Your task to perform on an android device: Open Google Maps and go to "Timeline" Image 0: 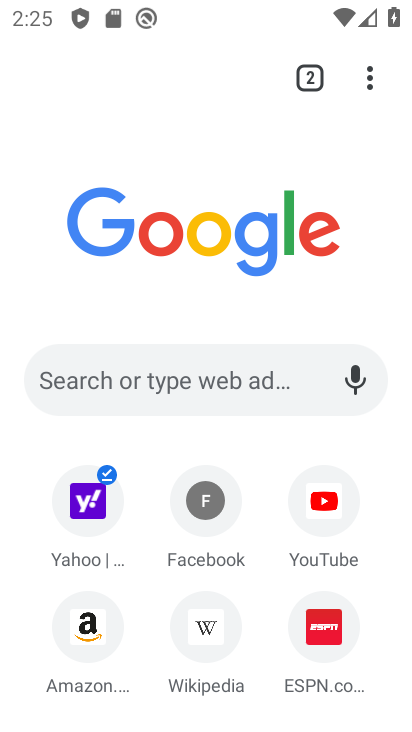
Step 0: press home button
Your task to perform on an android device: Open Google Maps and go to "Timeline" Image 1: 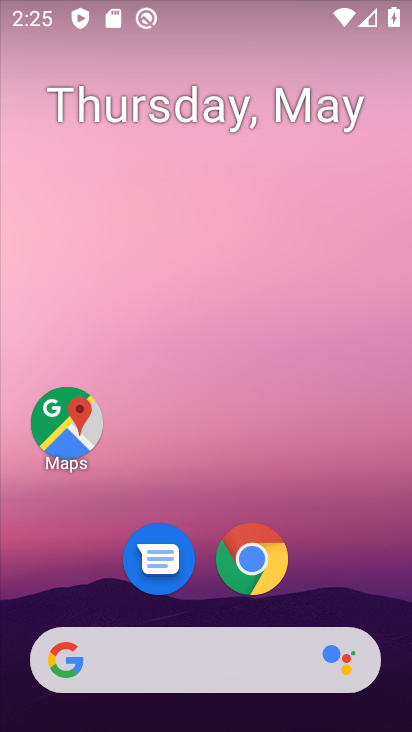
Step 1: click (74, 421)
Your task to perform on an android device: Open Google Maps and go to "Timeline" Image 2: 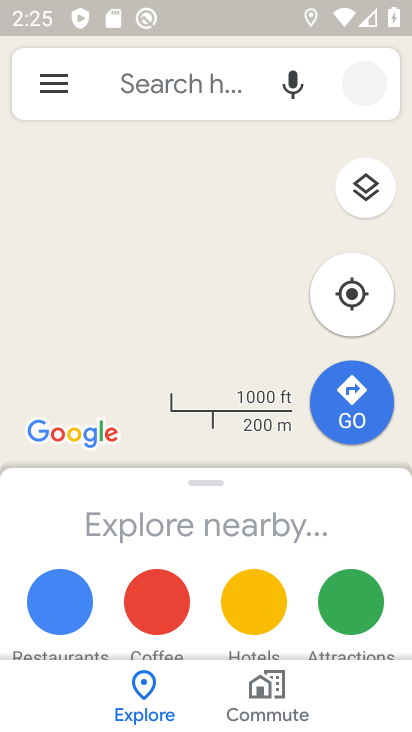
Step 2: click (50, 90)
Your task to perform on an android device: Open Google Maps and go to "Timeline" Image 3: 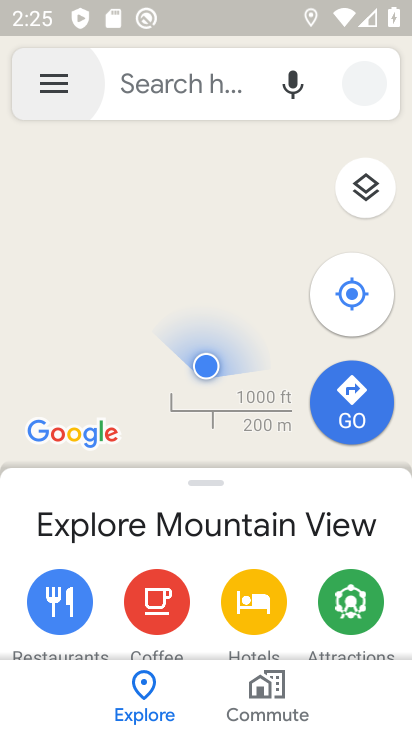
Step 3: click (50, 90)
Your task to perform on an android device: Open Google Maps and go to "Timeline" Image 4: 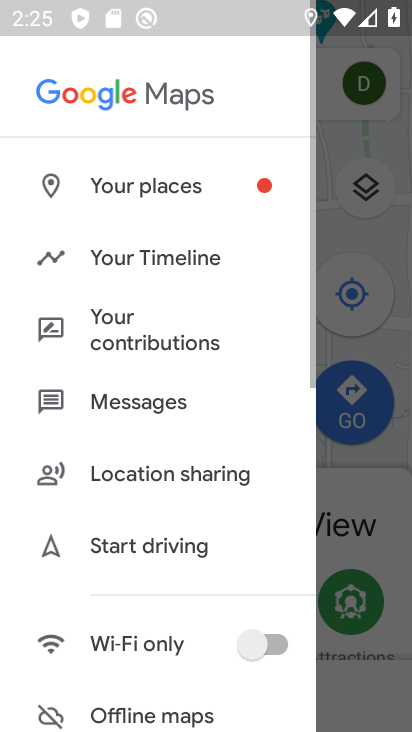
Step 4: click (146, 263)
Your task to perform on an android device: Open Google Maps and go to "Timeline" Image 5: 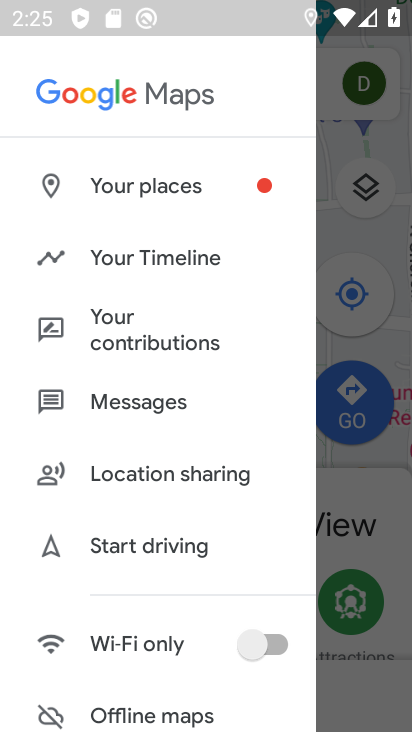
Step 5: click (143, 263)
Your task to perform on an android device: Open Google Maps and go to "Timeline" Image 6: 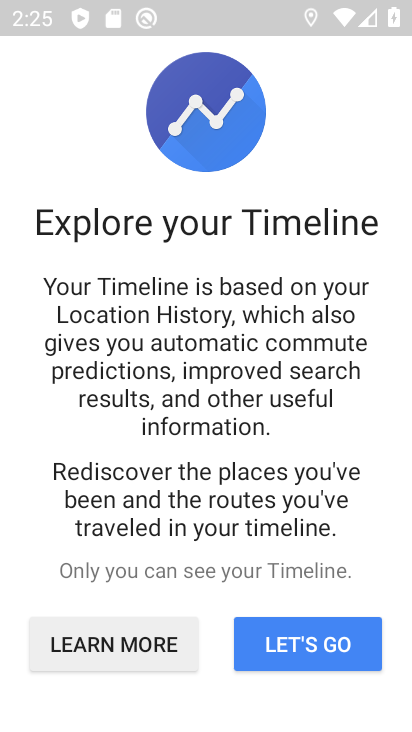
Step 6: click (304, 646)
Your task to perform on an android device: Open Google Maps and go to "Timeline" Image 7: 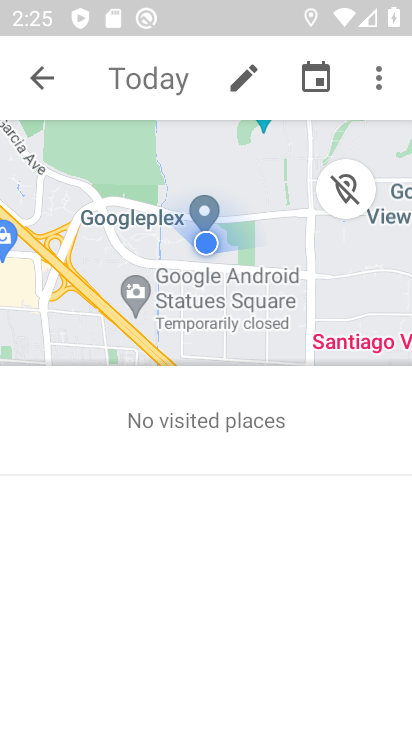
Step 7: click (383, 87)
Your task to perform on an android device: Open Google Maps and go to "Timeline" Image 8: 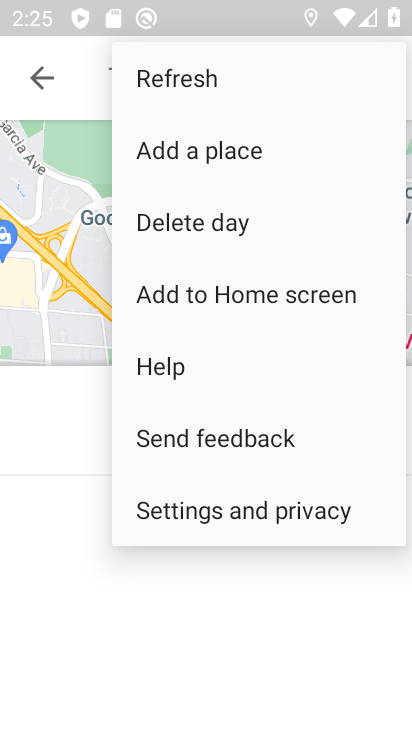
Step 8: click (32, 390)
Your task to perform on an android device: Open Google Maps and go to "Timeline" Image 9: 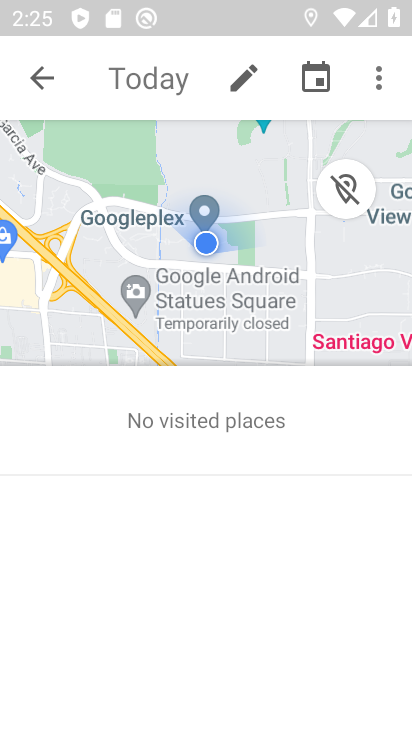
Step 9: task complete